Your task to perform on an android device: open app "Speedtest by Ookla" (install if not already installed) Image 0: 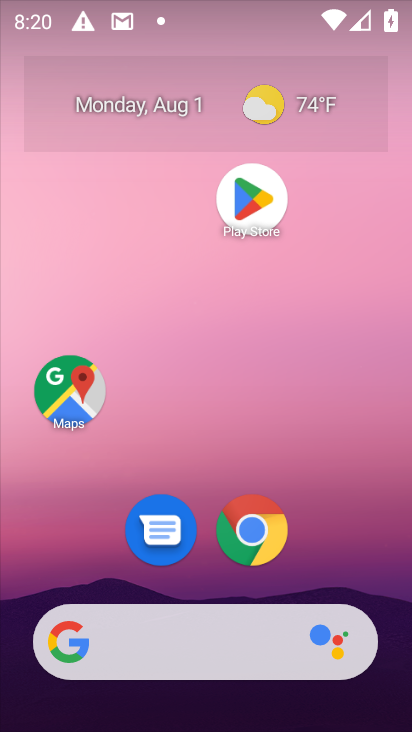
Step 0: click (251, 207)
Your task to perform on an android device: open app "Speedtest by Ookla" (install if not already installed) Image 1: 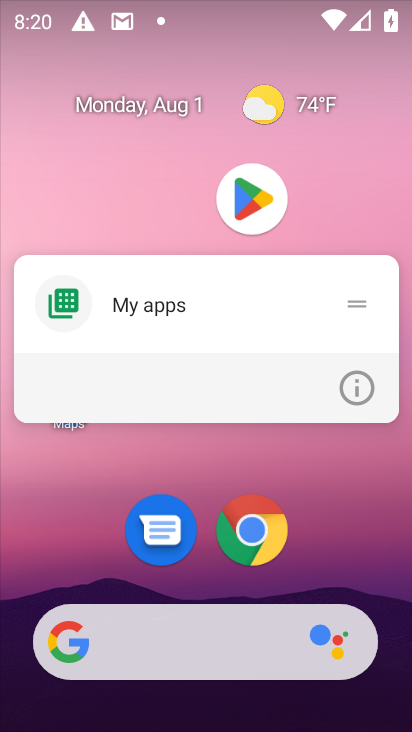
Step 1: click (251, 207)
Your task to perform on an android device: open app "Speedtest by Ookla" (install if not already installed) Image 2: 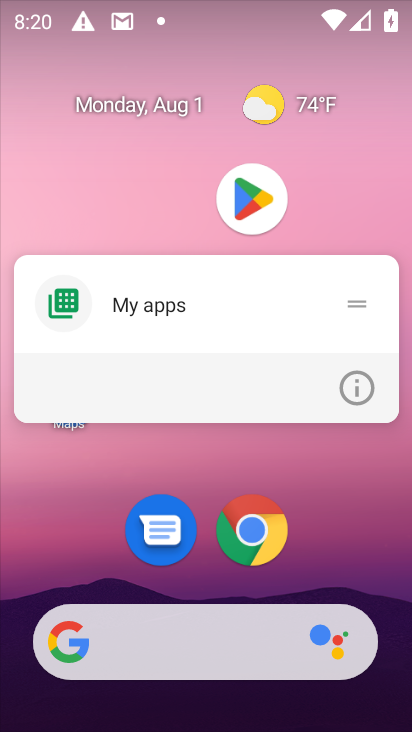
Step 2: click (251, 207)
Your task to perform on an android device: open app "Speedtest by Ookla" (install if not already installed) Image 3: 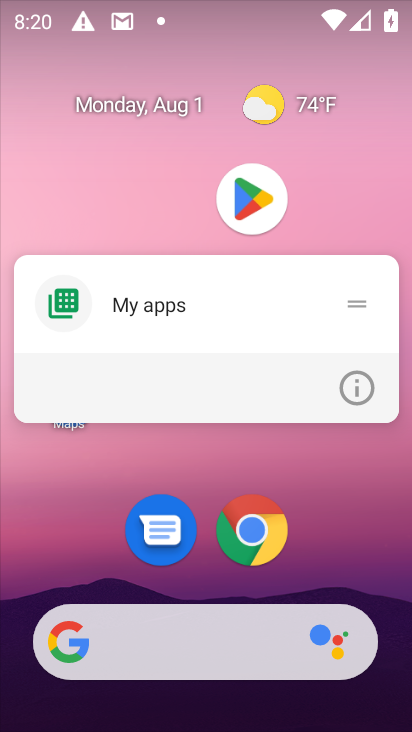
Step 3: click (251, 207)
Your task to perform on an android device: open app "Speedtest by Ookla" (install if not already installed) Image 4: 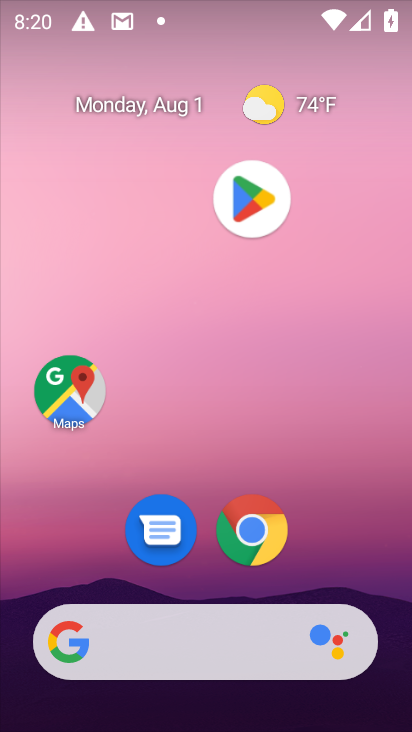
Step 4: click (251, 207)
Your task to perform on an android device: open app "Speedtest by Ookla" (install if not already installed) Image 5: 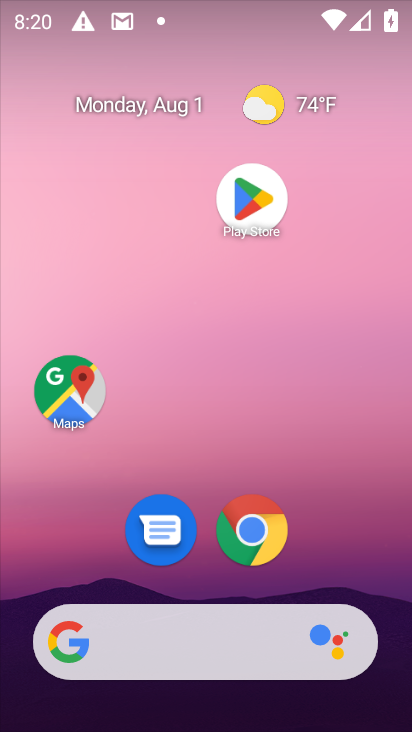
Step 5: click (251, 200)
Your task to perform on an android device: open app "Speedtest by Ookla" (install if not already installed) Image 6: 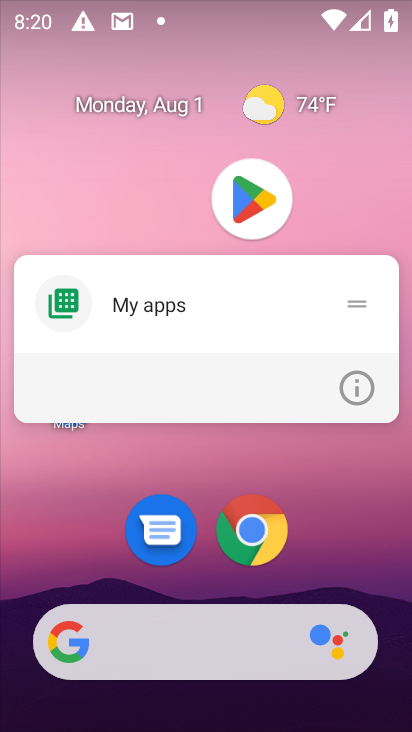
Step 6: click (251, 200)
Your task to perform on an android device: open app "Speedtest by Ookla" (install if not already installed) Image 7: 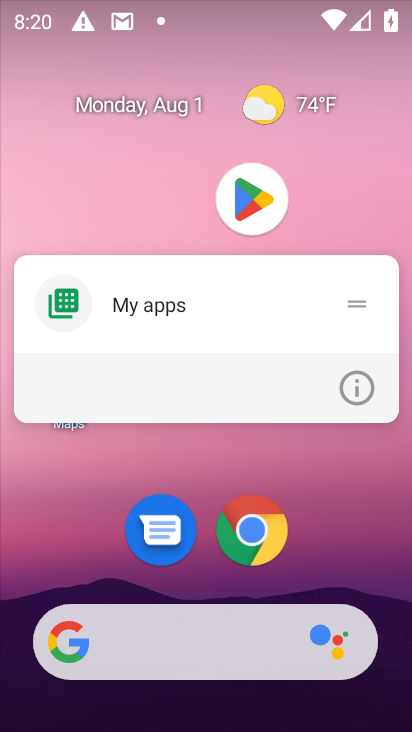
Step 7: click (247, 223)
Your task to perform on an android device: open app "Speedtest by Ookla" (install if not already installed) Image 8: 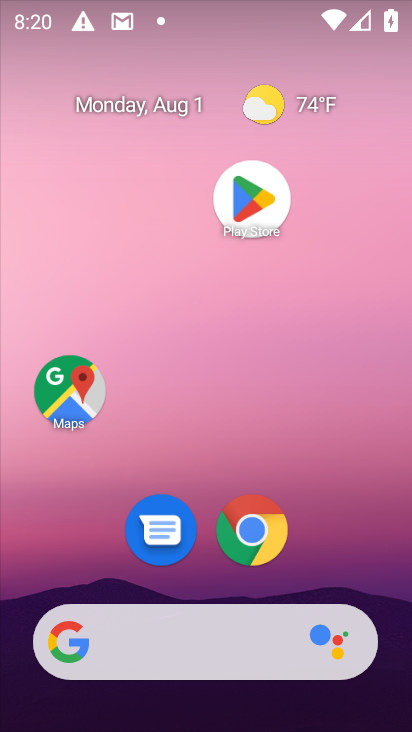
Step 8: click (212, 219)
Your task to perform on an android device: open app "Speedtest by Ookla" (install if not already installed) Image 9: 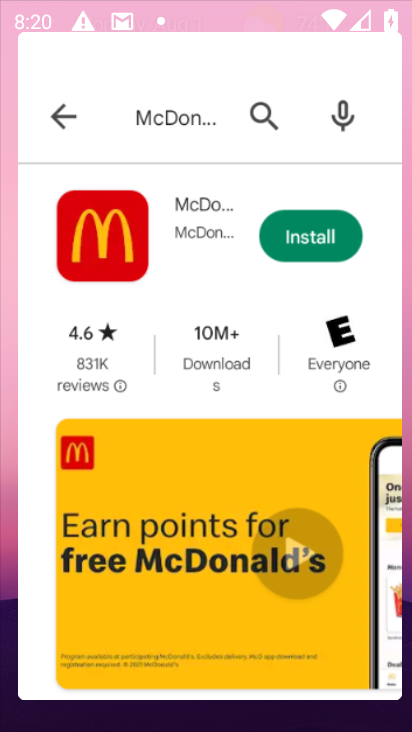
Step 9: click (230, 142)
Your task to perform on an android device: open app "Speedtest by Ookla" (install if not already installed) Image 10: 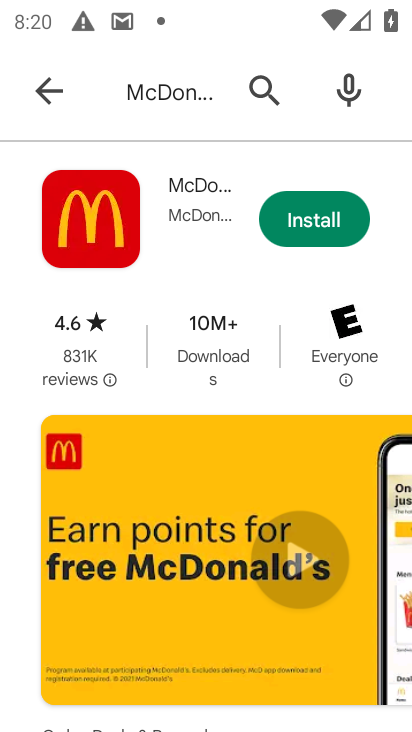
Step 10: click (258, 89)
Your task to perform on an android device: open app "Speedtest by Ookla" (install if not already installed) Image 11: 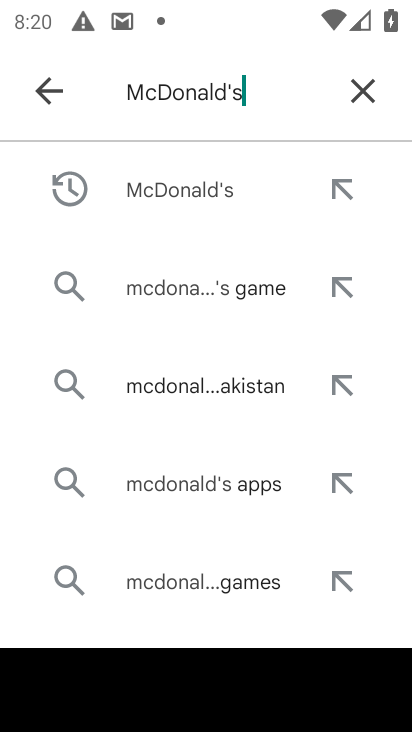
Step 11: click (347, 83)
Your task to perform on an android device: open app "Speedtest by Ookla" (install if not already installed) Image 12: 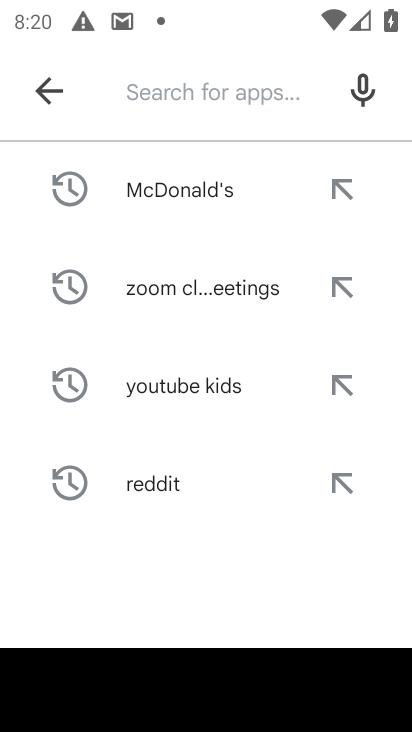
Step 12: type "speedtest by"
Your task to perform on an android device: open app "Speedtest by Ookla" (install if not already installed) Image 13: 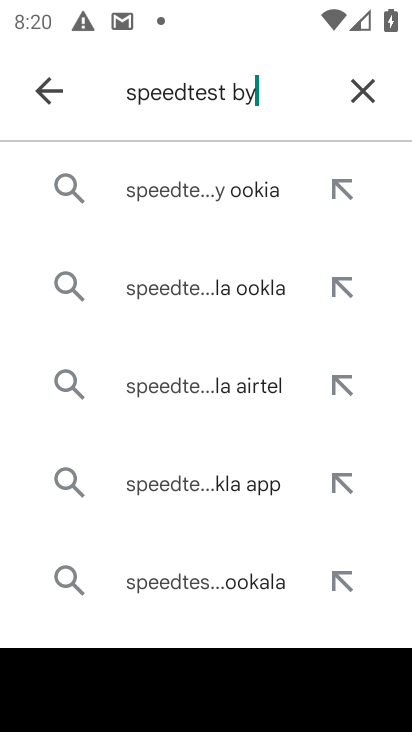
Step 13: click (166, 295)
Your task to perform on an android device: open app "Speedtest by Ookla" (install if not already installed) Image 14: 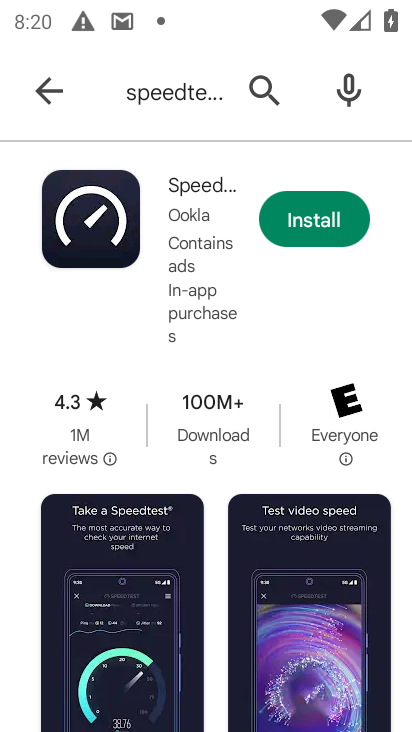
Step 14: click (295, 222)
Your task to perform on an android device: open app "Speedtest by Ookla" (install if not already installed) Image 15: 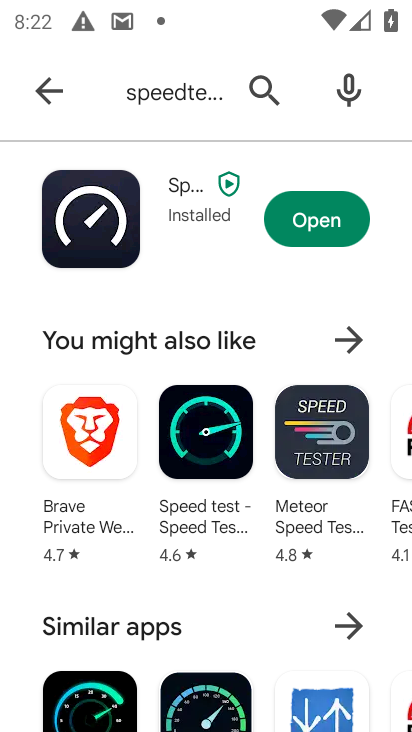
Step 15: click (333, 207)
Your task to perform on an android device: open app "Speedtest by Ookla" (install if not already installed) Image 16: 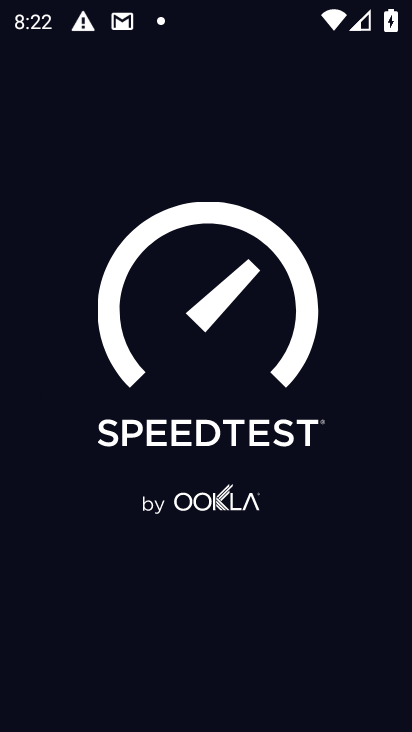
Step 16: task complete